Your task to perform on an android device: turn off translation in the chrome app Image 0: 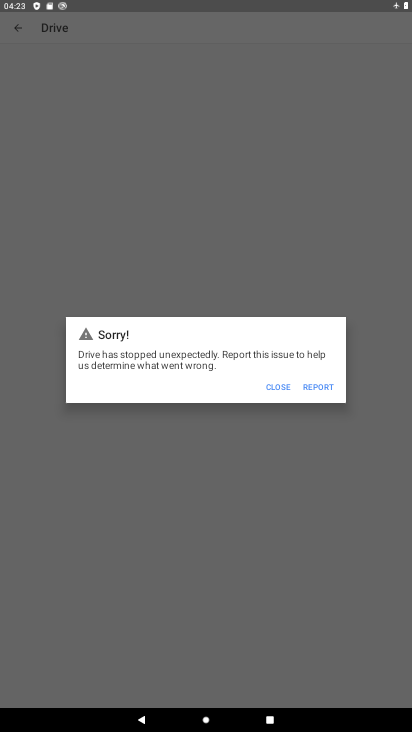
Step 0: press home button
Your task to perform on an android device: turn off translation in the chrome app Image 1: 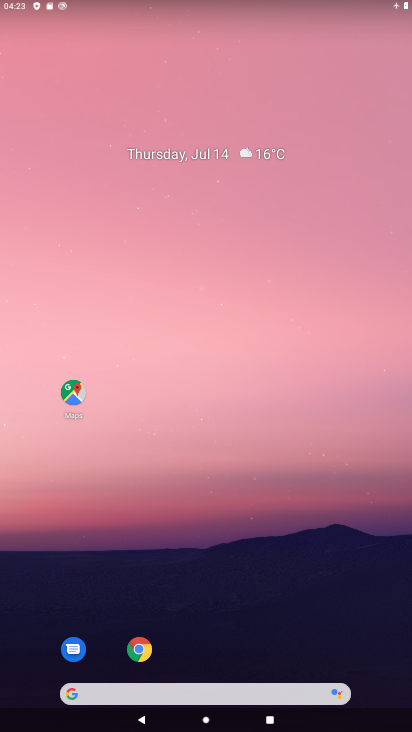
Step 1: drag from (195, 595) to (134, 110)
Your task to perform on an android device: turn off translation in the chrome app Image 2: 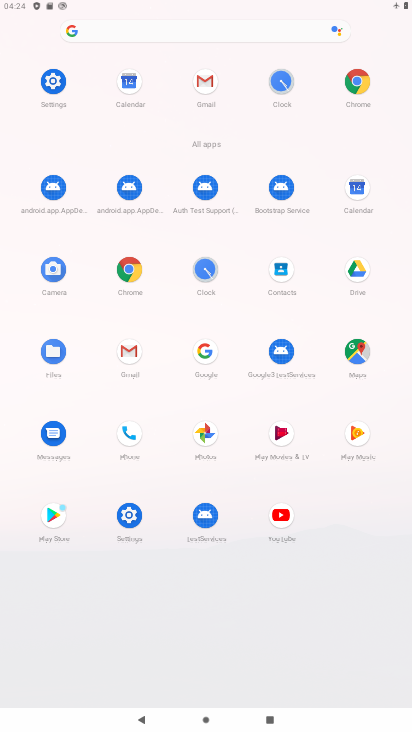
Step 2: click (360, 82)
Your task to perform on an android device: turn off translation in the chrome app Image 3: 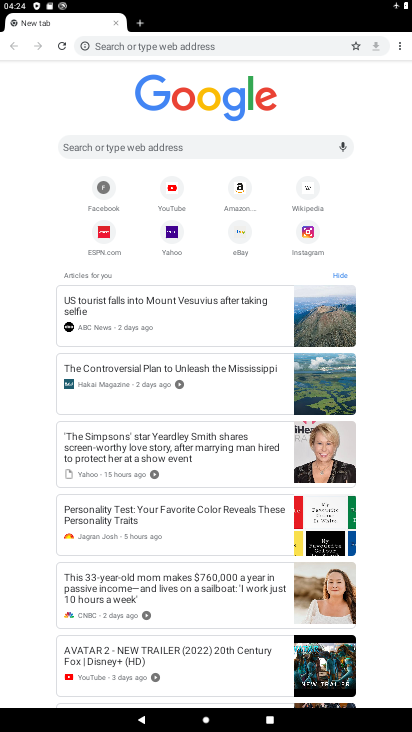
Step 3: drag from (403, 47) to (319, 222)
Your task to perform on an android device: turn off translation in the chrome app Image 4: 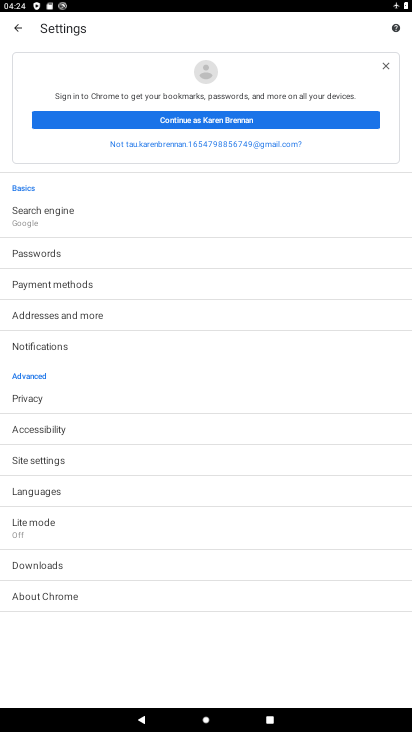
Step 4: click (57, 484)
Your task to perform on an android device: turn off translation in the chrome app Image 5: 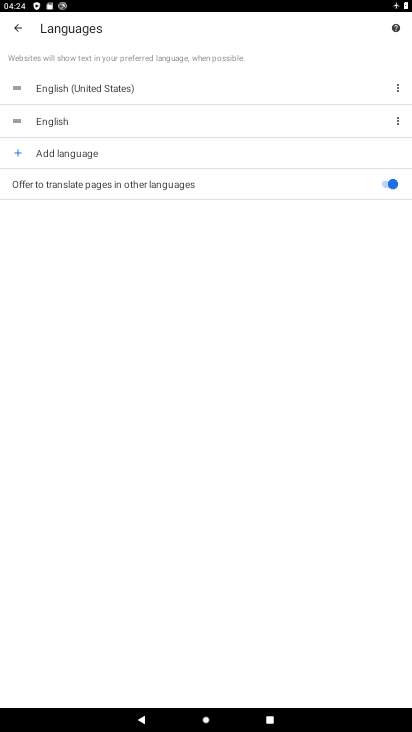
Step 5: click (399, 185)
Your task to perform on an android device: turn off translation in the chrome app Image 6: 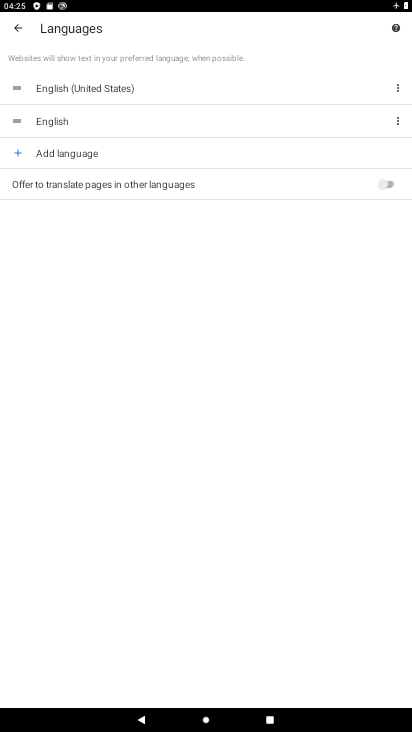
Step 6: task complete